Your task to perform on an android device: Open Youtube and go to "Your channel" Image 0: 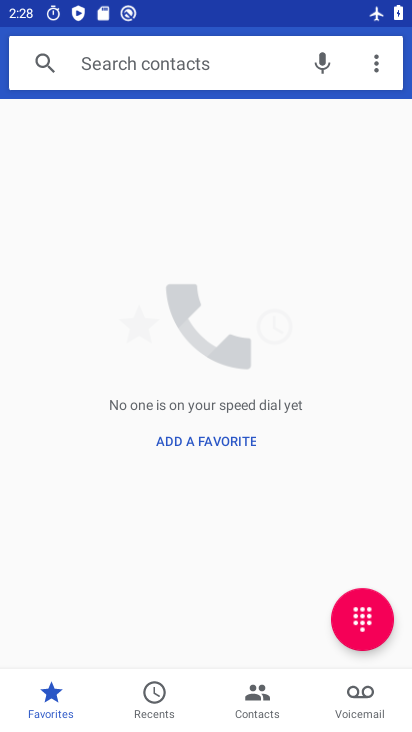
Step 0: press back button
Your task to perform on an android device: Open Youtube and go to "Your channel" Image 1: 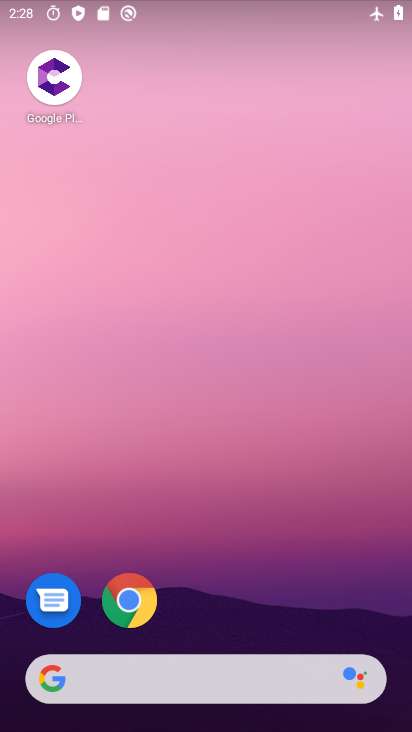
Step 1: drag from (255, 597) to (200, 0)
Your task to perform on an android device: Open Youtube and go to "Your channel" Image 2: 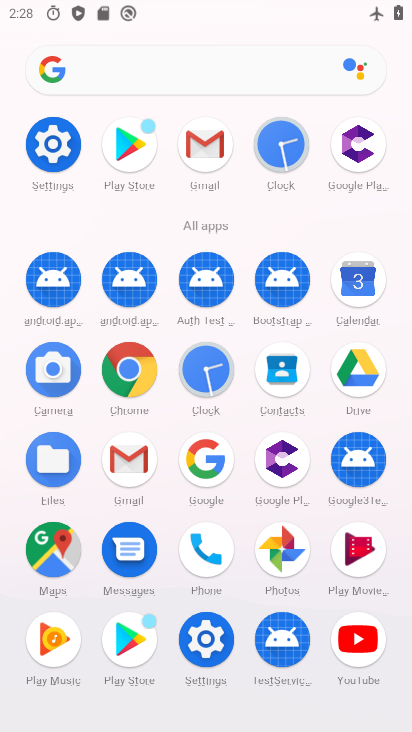
Step 2: click (355, 636)
Your task to perform on an android device: Open Youtube and go to "Your channel" Image 3: 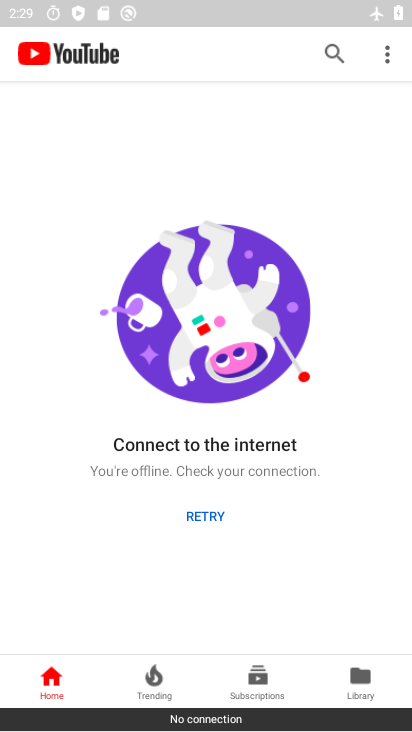
Step 3: click (352, 675)
Your task to perform on an android device: Open Youtube and go to "Your channel" Image 4: 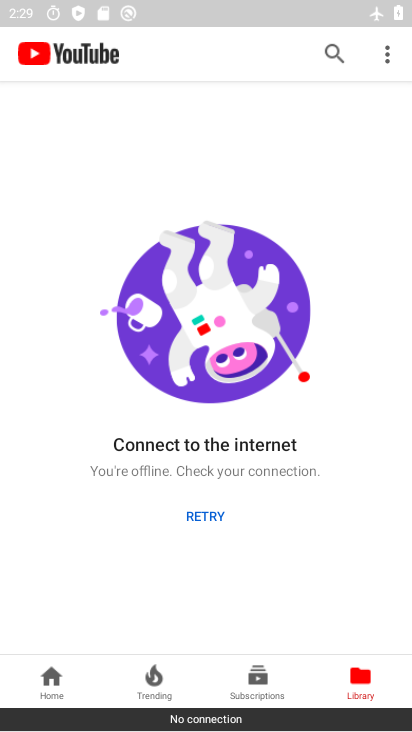
Step 4: click (359, 670)
Your task to perform on an android device: Open Youtube and go to "Your channel" Image 5: 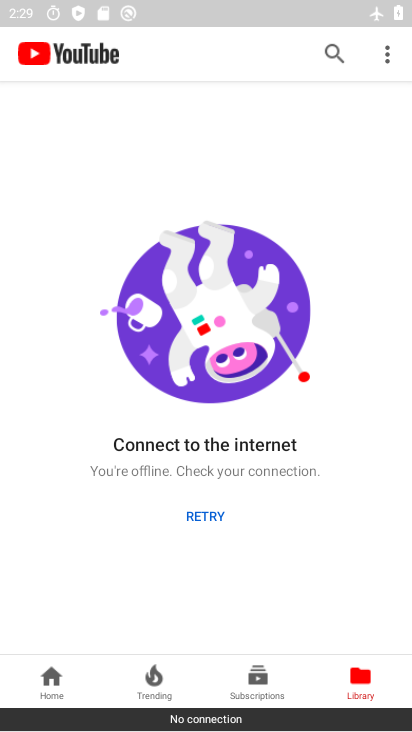
Step 5: click (194, 508)
Your task to perform on an android device: Open Youtube and go to "Your channel" Image 6: 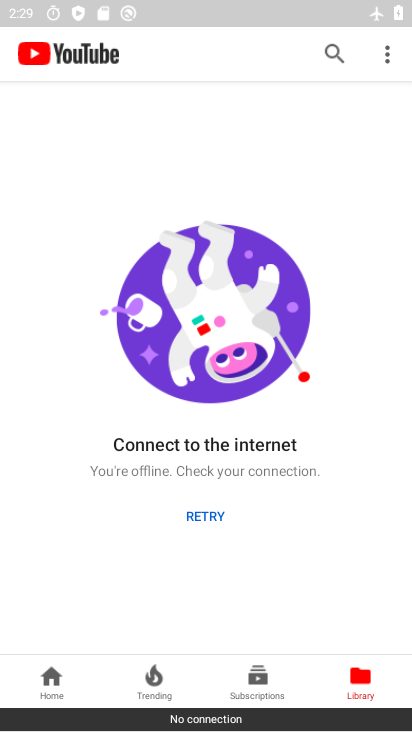
Step 6: task complete